Your task to perform on an android device: Open settings Image 0: 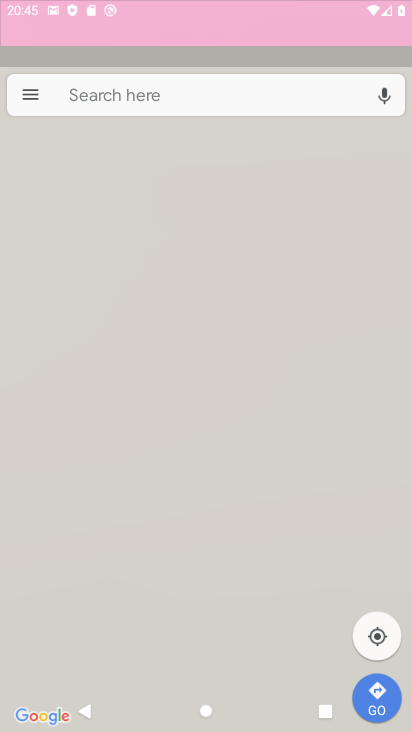
Step 0: press home button
Your task to perform on an android device: Open settings Image 1: 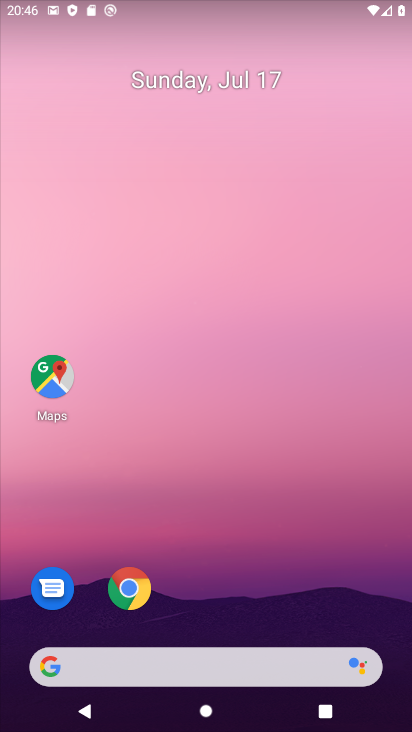
Step 1: drag from (265, 480) to (276, 31)
Your task to perform on an android device: Open settings Image 2: 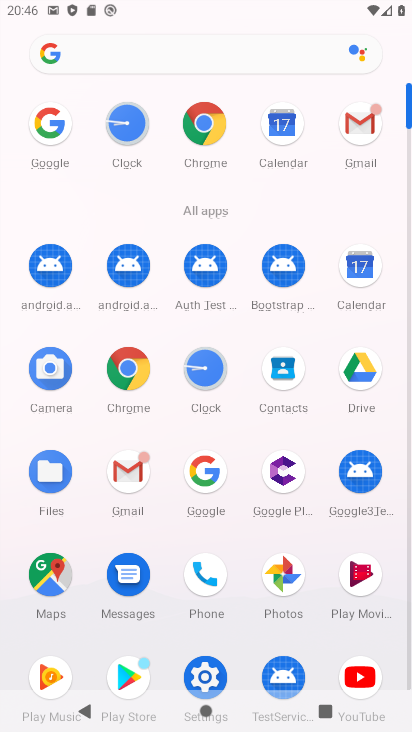
Step 2: click (211, 673)
Your task to perform on an android device: Open settings Image 3: 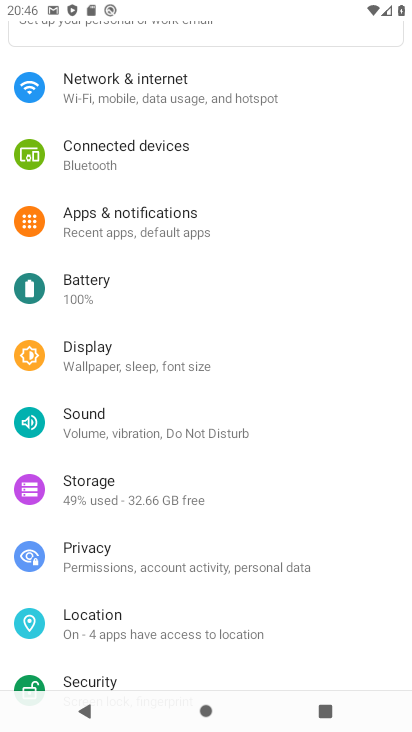
Step 3: task complete